Your task to perform on an android device: Open Google Chrome Image 0: 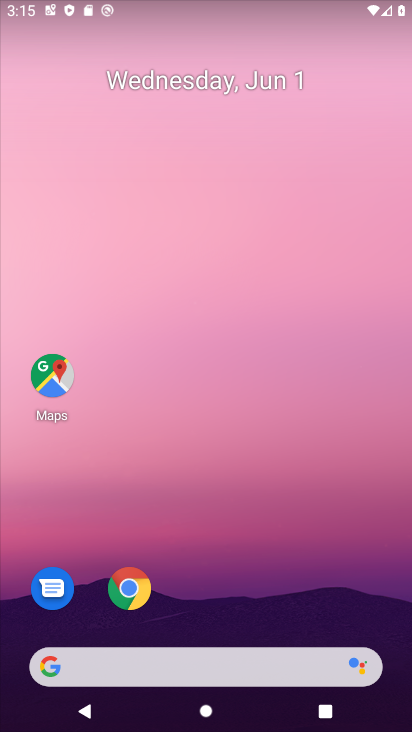
Step 0: click (134, 589)
Your task to perform on an android device: Open Google Chrome Image 1: 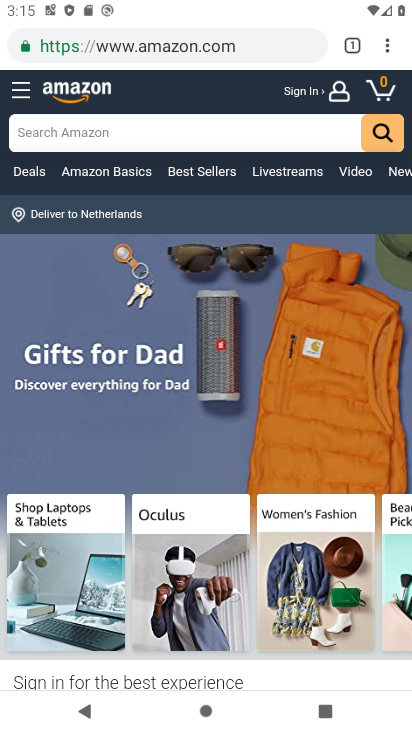
Step 1: task complete